Your task to perform on an android device: see tabs open on other devices in the chrome app Image 0: 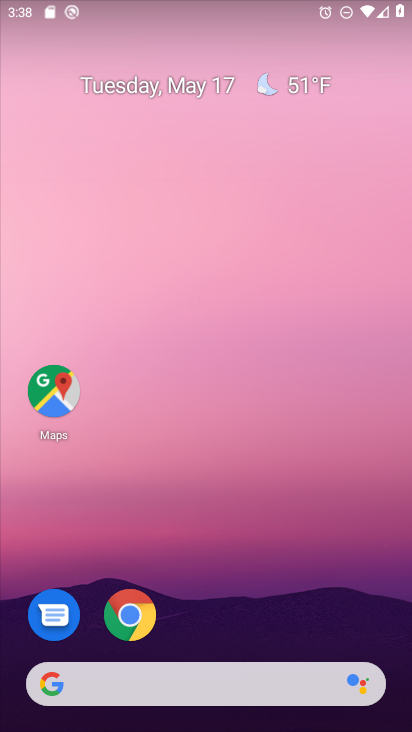
Step 0: click (128, 609)
Your task to perform on an android device: see tabs open on other devices in the chrome app Image 1: 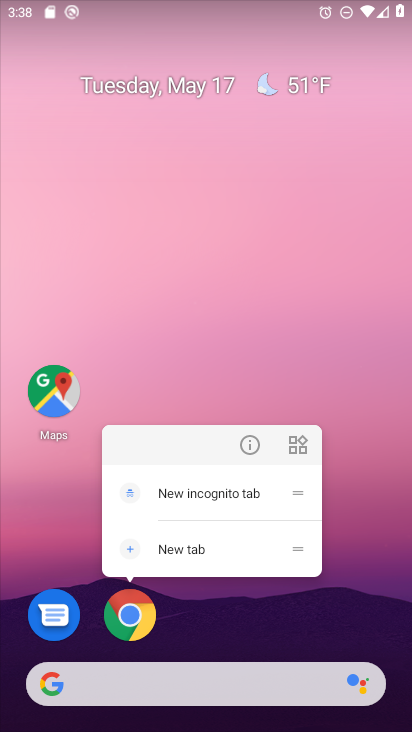
Step 1: click (128, 618)
Your task to perform on an android device: see tabs open on other devices in the chrome app Image 2: 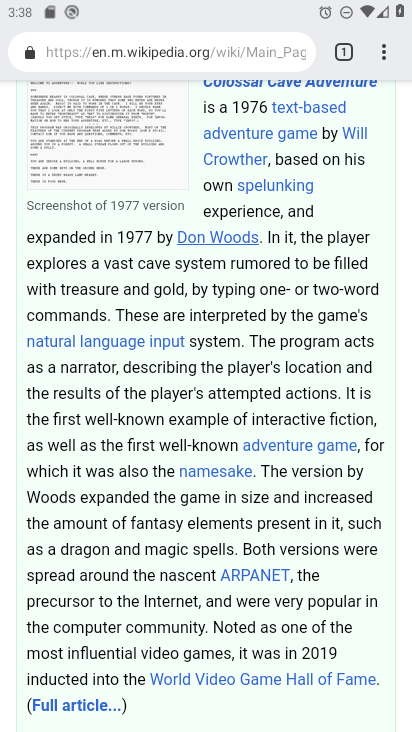
Step 2: click (388, 42)
Your task to perform on an android device: see tabs open on other devices in the chrome app Image 3: 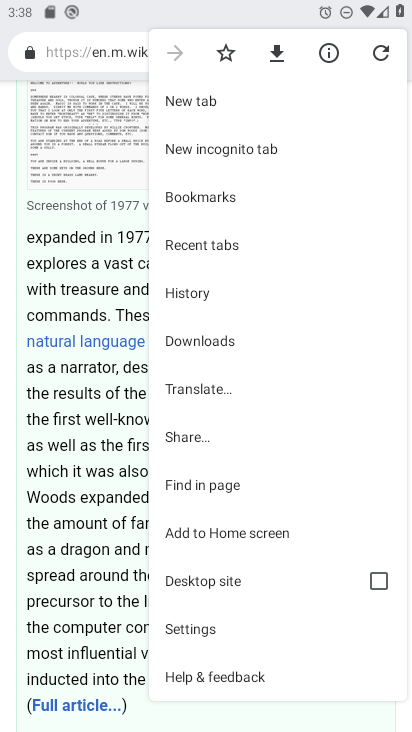
Step 3: click (259, 236)
Your task to perform on an android device: see tabs open on other devices in the chrome app Image 4: 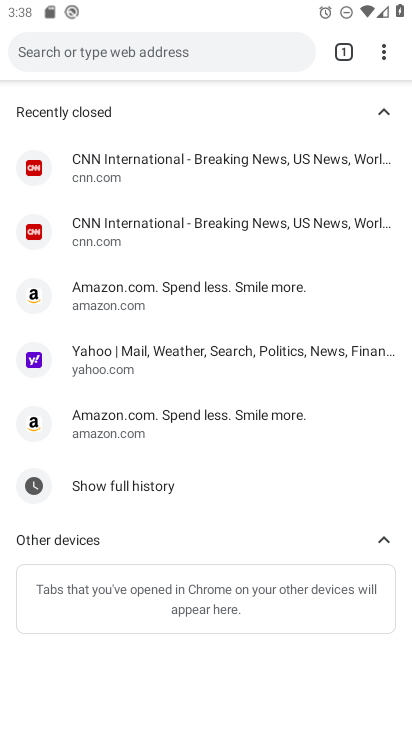
Step 4: task complete